Your task to perform on an android device: Do I have any events tomorrow? Image 0: 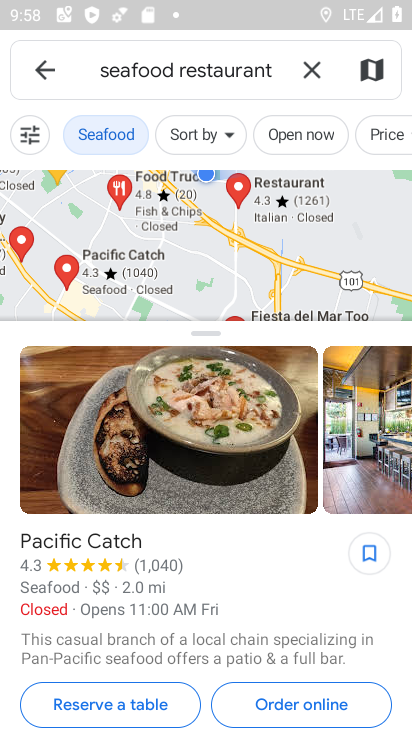
Step 0: press home button
Your task to perform on an android device: Do I have any events tomorrow? Image 1: 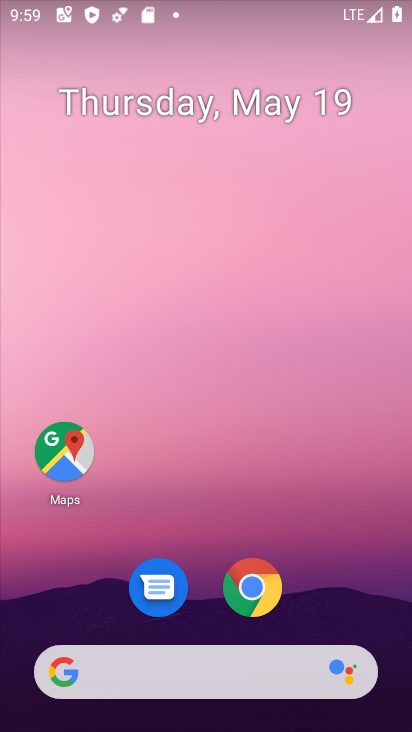
Step 1: click (226, 107)
Your task to perform on an android device: Do I have any events tomorrow? Image 2: 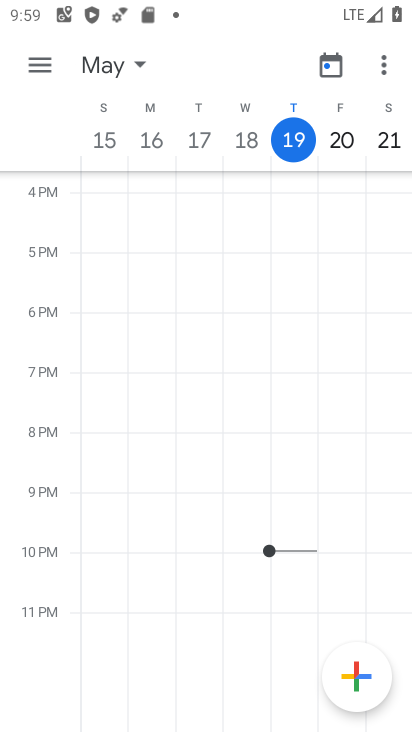
Step 2: click (130, 68)
Your task to perform on an android device: Do I have any events tomorrow? Image 3: 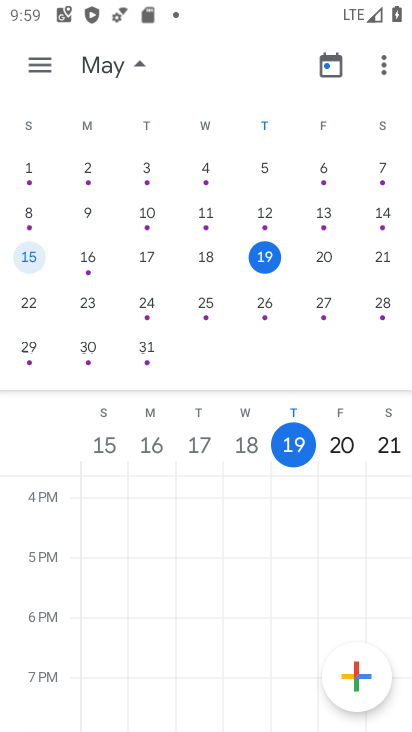
Step 3: click (324, 264)
Your task to perform on an android device: Do I have any events tomorrow? Image 4: 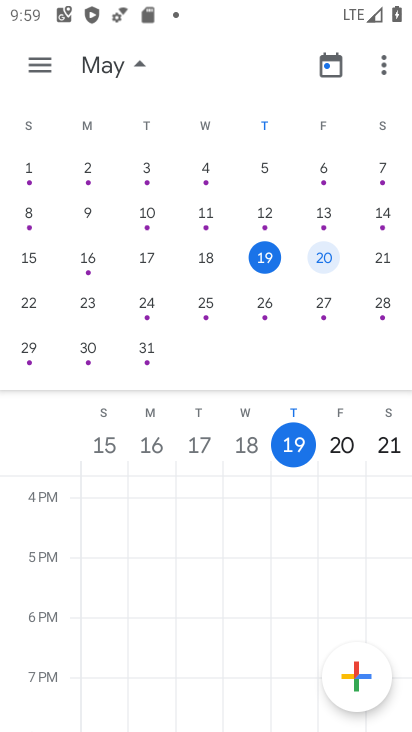
Step 4: click (324, 264)
Your task to perform on an android device: Do I have any events tomorrow? Image 5: 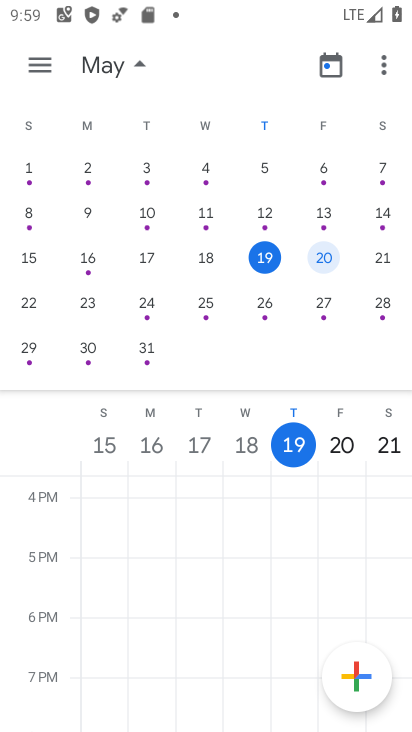
Step 5: click (324, 264)
Your task to perform on an android device: Do I have any events tomorrow? Image 6: 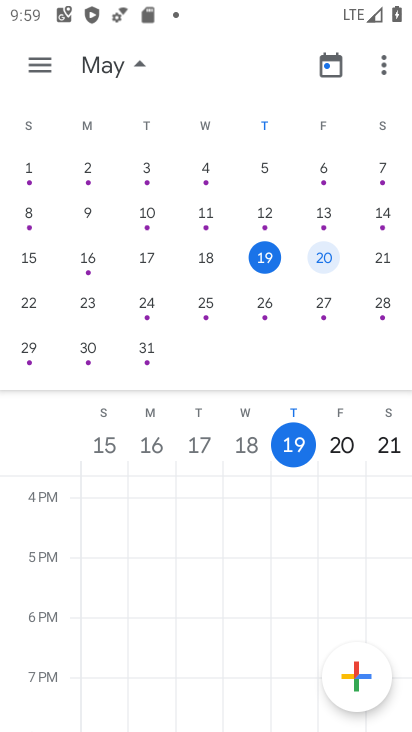
Step 6: click (324, 264)
Your task to perform on an android device: Do I have any events tomorrow? Image 7: 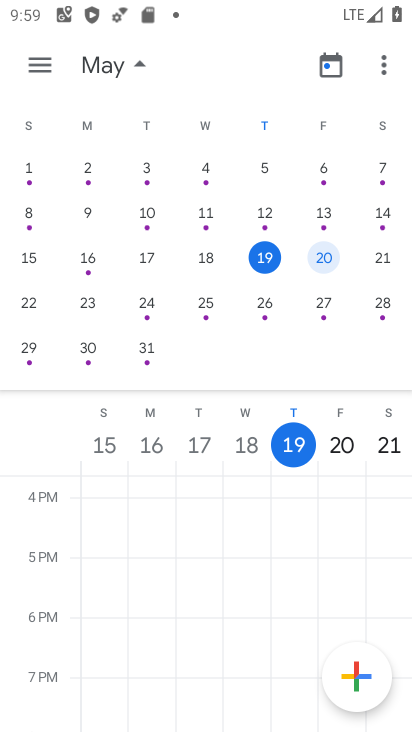
Step 7: click (30, 64)
Your task to perform on an android device: Do I have any events tomorrow? Image 8: 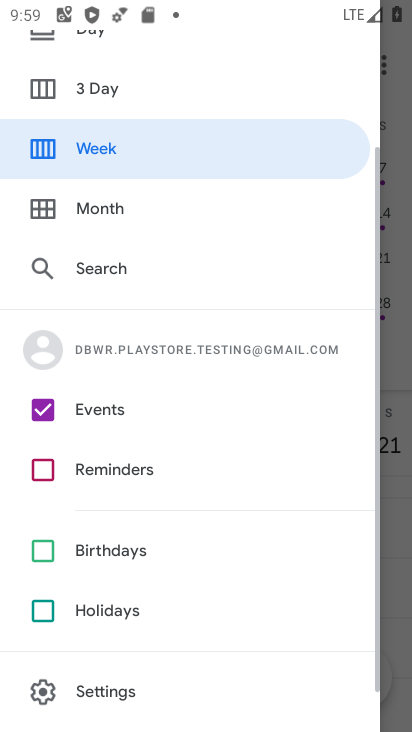
Step 8: drag from (84, 72) to (173, 572)
Your task to perform on an android device: Do I have any events tomorrow? Image 9: 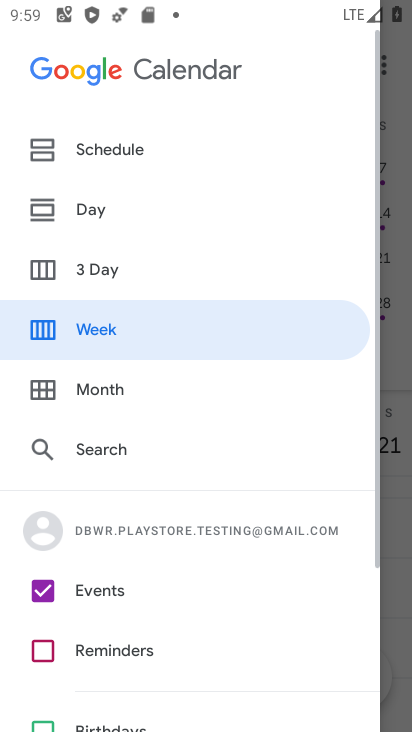
Step 9: click (133, 160)
Your task to perform on an android device: Do I have any events tomorrow? Image 10: 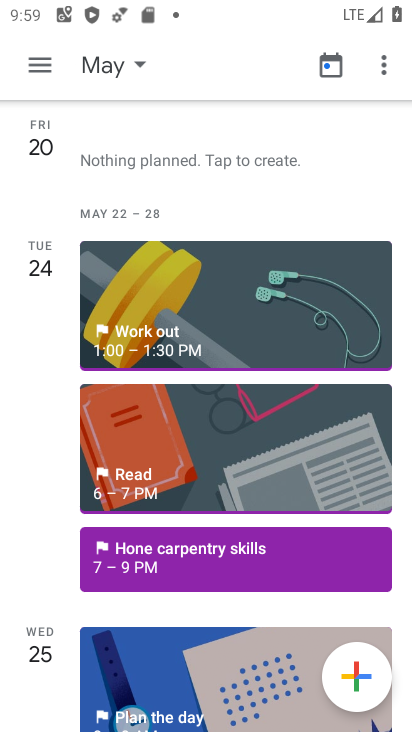
Step 10: task complete